Your task to perform on an android device: turn off data saver in the chrome app Image 0: 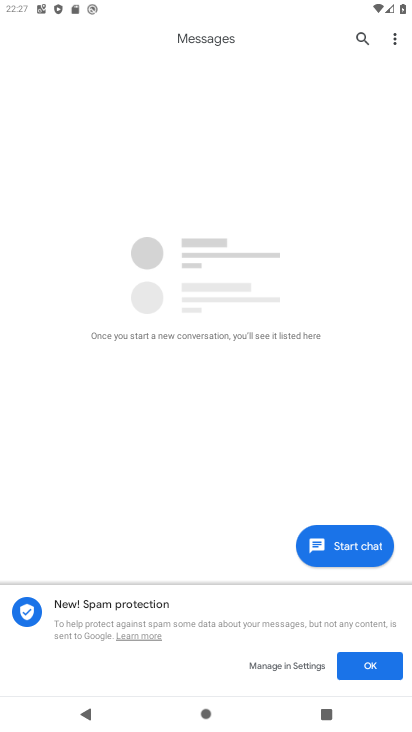
Step 0: press home button
Your task to perform on an android device: turn off data saver in the chrome app Image 1: 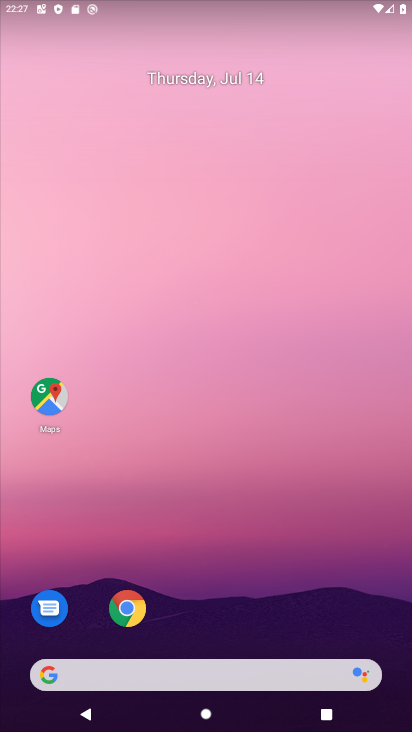
Step 1: click (128, 612)
Your task to perform on an android device: turn off data saver in the chrome app Image 2: 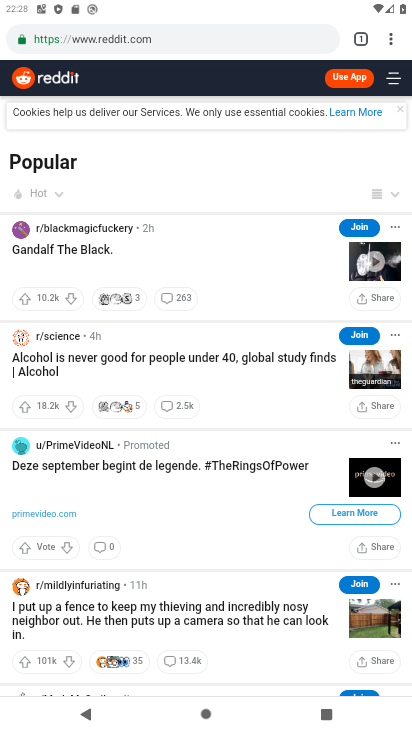
Step 2: click (391, 41)
Your task to perform on an android device: turn off data saver in the chrome app Image 3: 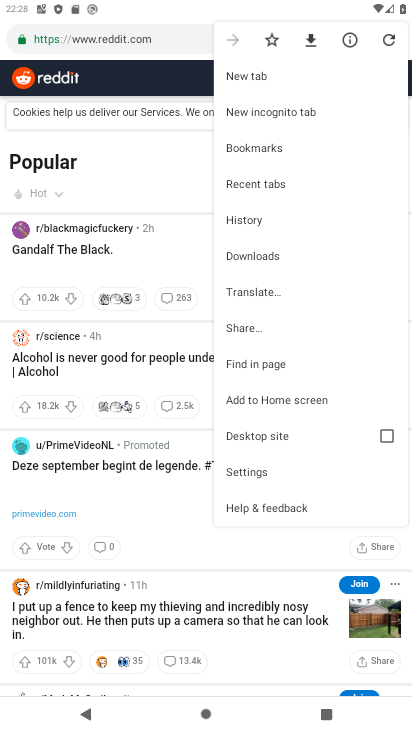
Step 3: click (256, 470)
Your task to perform on an android device: turn off data saver in the chrome app Image 4: 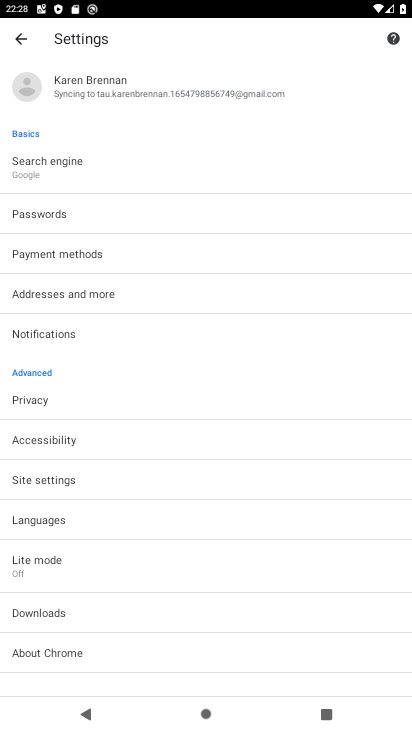
Step 4: click (48, 567)
Your task to perform on an android device: turn off data saver in the chrome app Image 5: 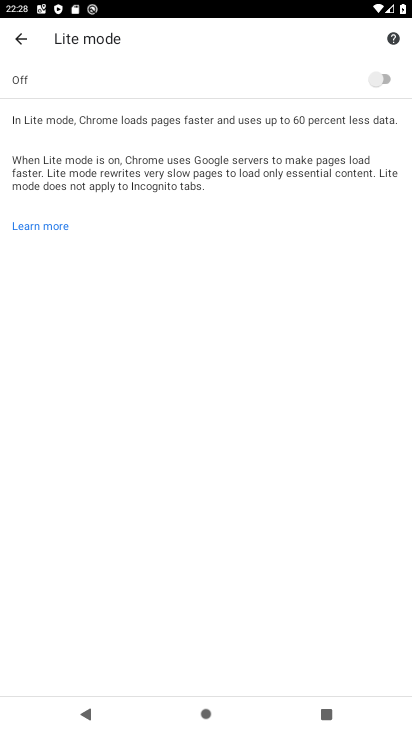
Step 5: task complete